Your task to perform on an android device: turn off improve location accuracy Image 0: 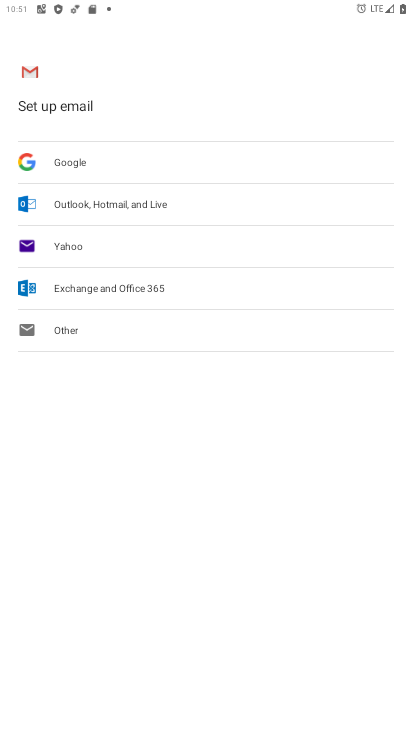
Step 0: press home button
Your task to perform on an android device: turn off improve location accuracy Image 1: 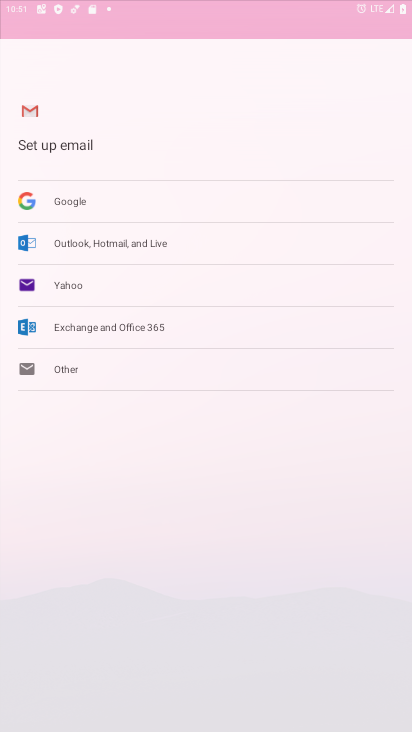
Step 1: drag from (160, 609) to (295, 52)
Your task to perform on an android device: turn off improve location accuracy Image 2: 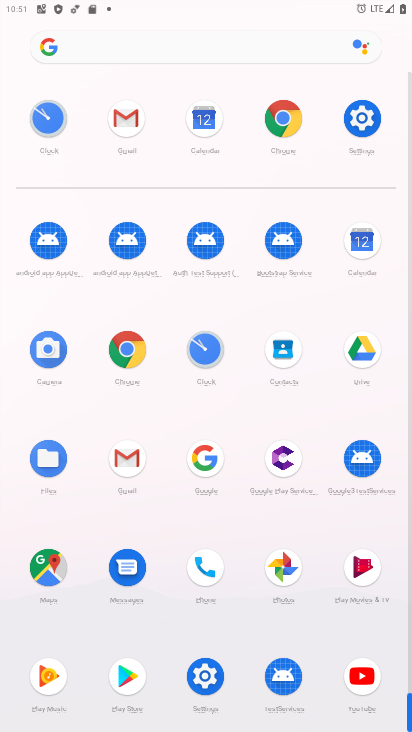
Step 2: click (366, 118)
Your task to perform on an android device: turn off improve location accuracy Image 3: 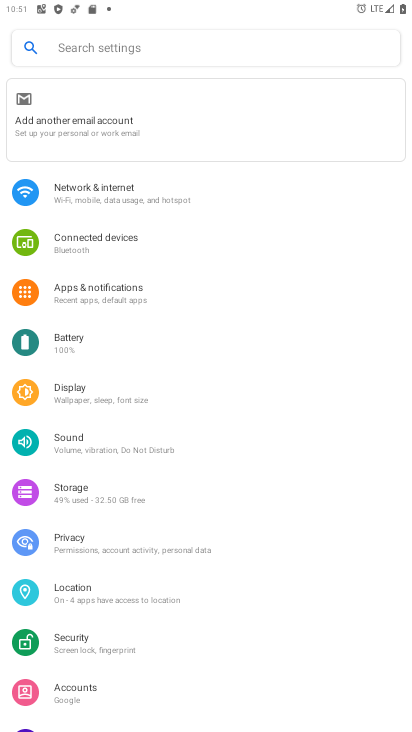
Step 3: click (98, 590)
Your task to perform on an android device: turn off improve location accuracy Image 4: 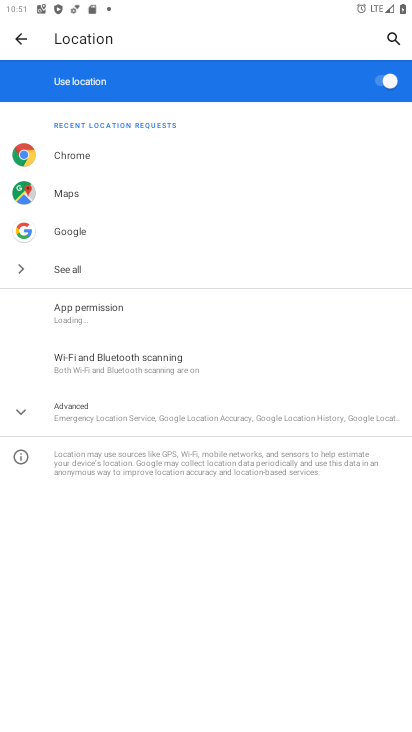
Step 4: click (97, 418)
Your task to perform on an android device: turn off improve location accuracy Image 5: 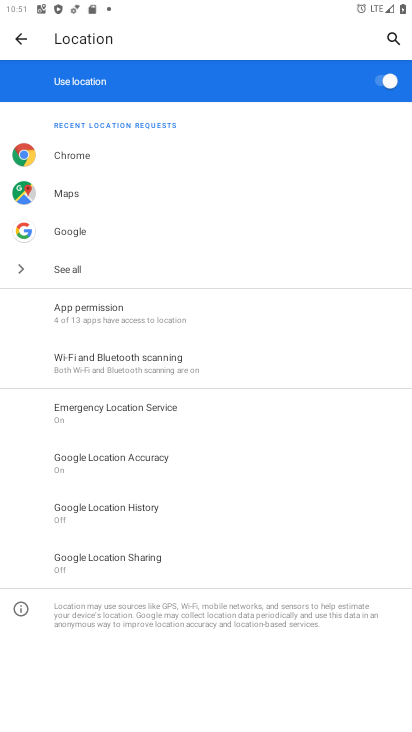
Step 5: click (185, 469)
Your task to perform on an android device: turn off improve location accuracy Image 6: 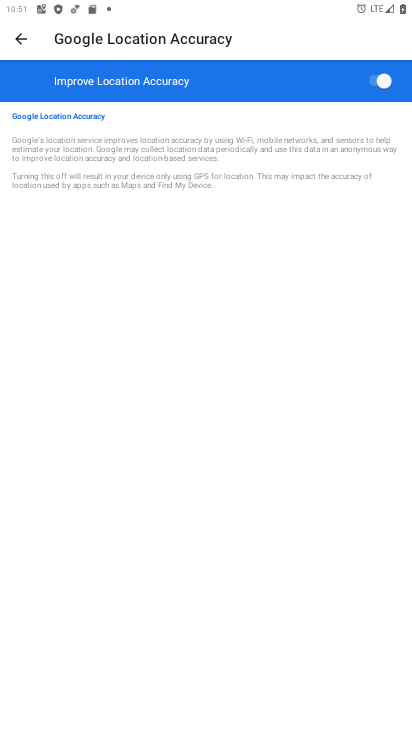
Step 6: drag from (184, 464) to (323, 51)
Your task to perform on an android device: turn off improve location accuracy Image 7: 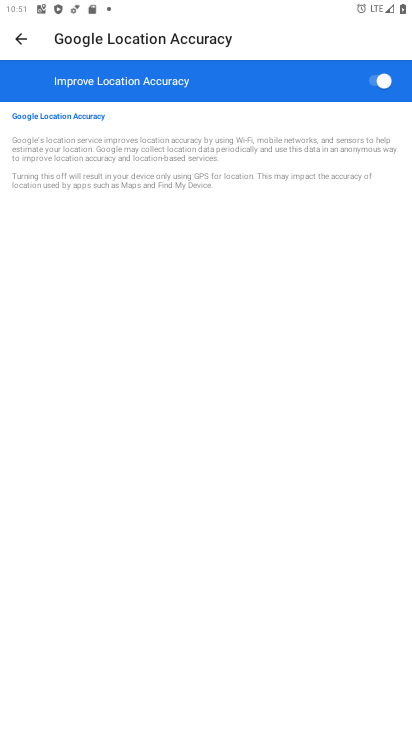
Step 7: drag from (126, 600) to (237, 263)
Your task to perform on an android device: turn off improve location accuracy Image 8: 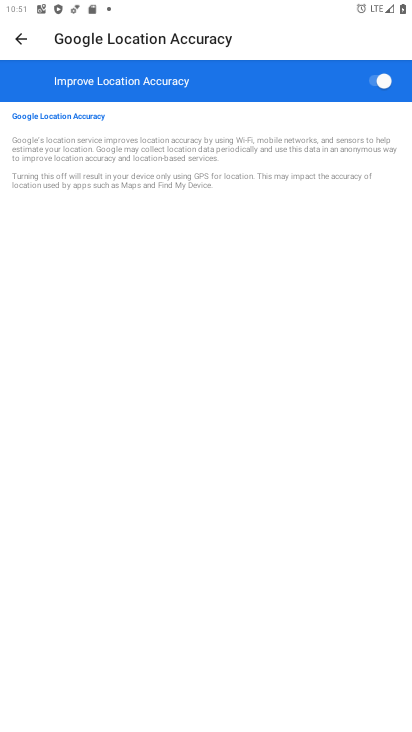
Step 8: drag from (276, 448) to (335, 263)
Your task to perform on an android device: turn off improve location accuracy Image 9: 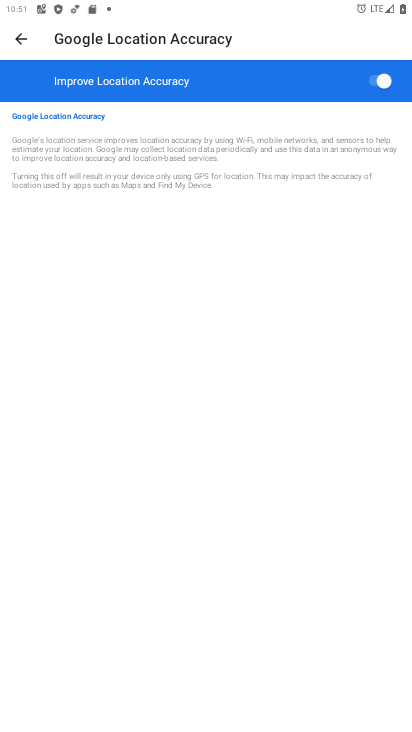
Step 9: drag from (268, 483) to (325, 304)
Your task to perform on an android device: turn off improve location accuracy Image 10: 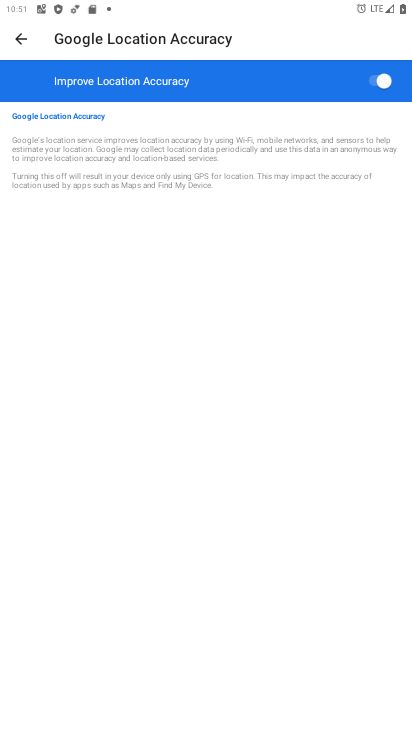
Step 10: drag from (154, 657) to (263, 395)
Your task to perform on an android device: turn off improve location accuracy Image 11: 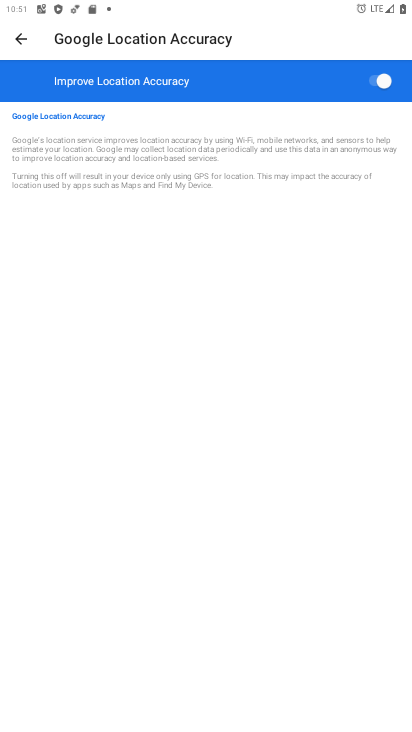
Step 11: click (386, 77)
Your task to perform on an android device: turn off improve location accuracy Image 12: 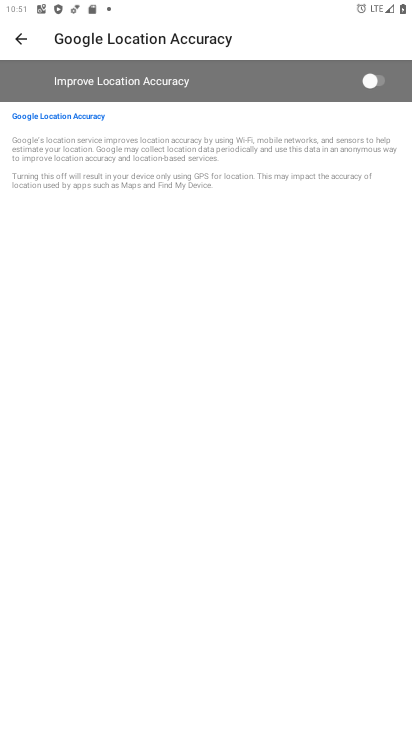
Step 12: task complete